Your task to perform on an android device: turn off location history Image 0: 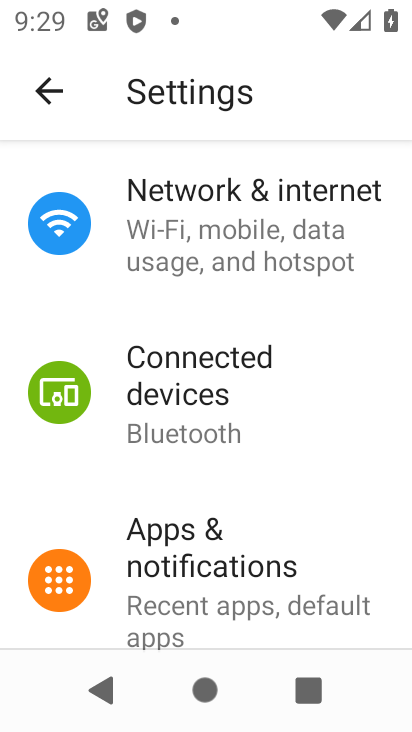
Step 0: drag from (386, 574) to (364, 367)
Your task to perform on an android device: turn off location history Image 1: 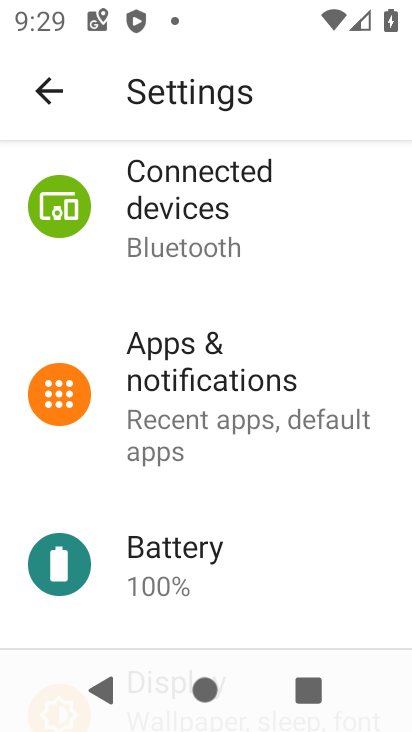
Step 1: drag from (362, 560) to (365, 365)
Your task to perform on an android device: turn off location history Image 2: 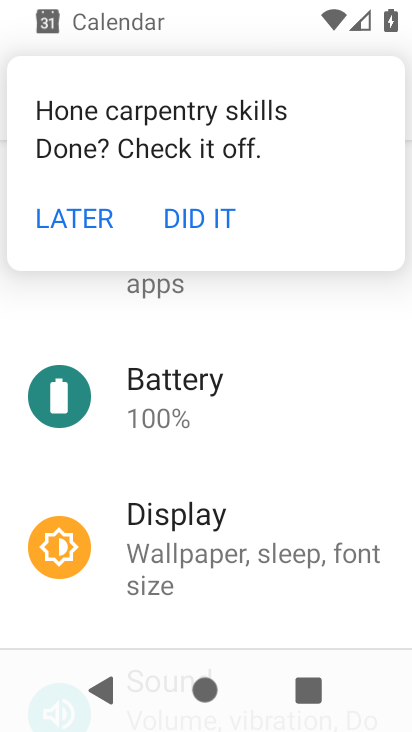
Step 2: drag from (357, 592) to (351, 392)
Your task to perform on an android device: turn off location history Image 3: 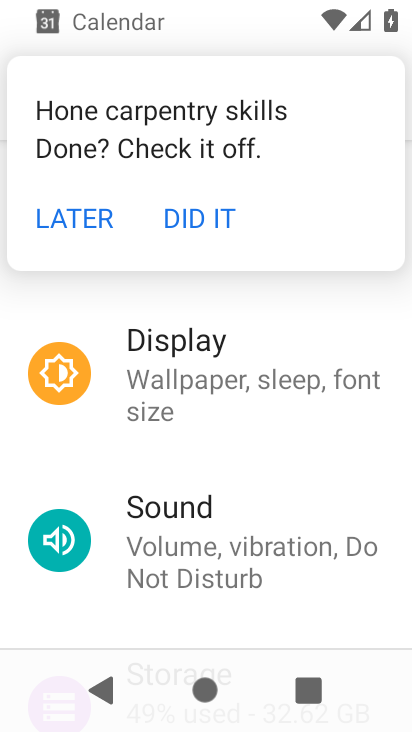
Step 3: drag from (357, 592) to (361, 438)
Your task to perform on an android device: turn off location history Image 4: 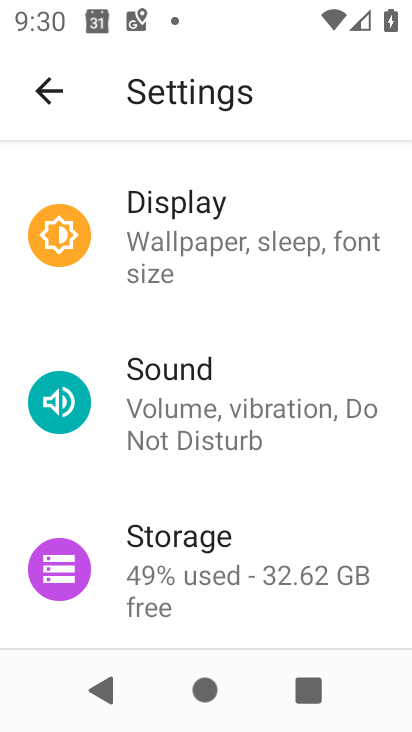
Step 4: drag from (367, 629) to (360, 479)
Your task to perform on an android device: turn off location history Image 5: 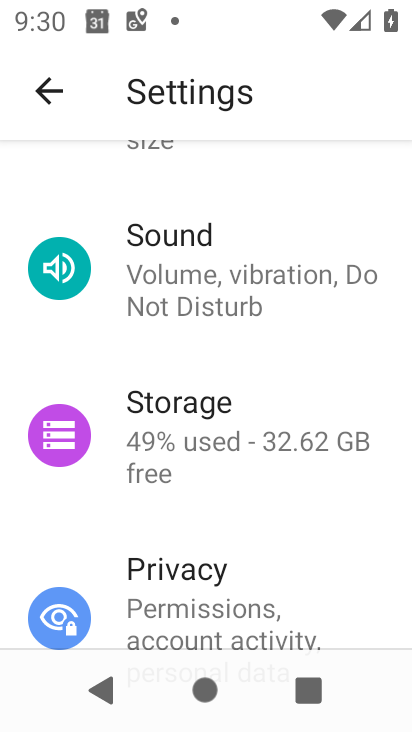
Step 5: drag from (355, 568) to (353, 463)
Your task to perform on an android device: turn off location history Image 6: 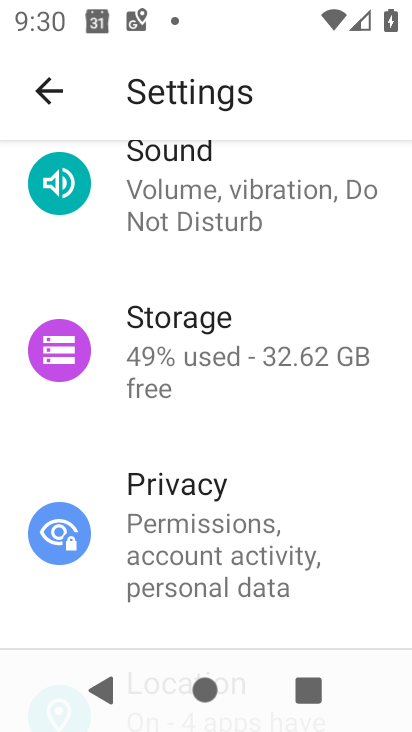
Step 6: drag from (345, 582) to (341, 464)
Your task to perform on an android device: turn off location history Image 7: 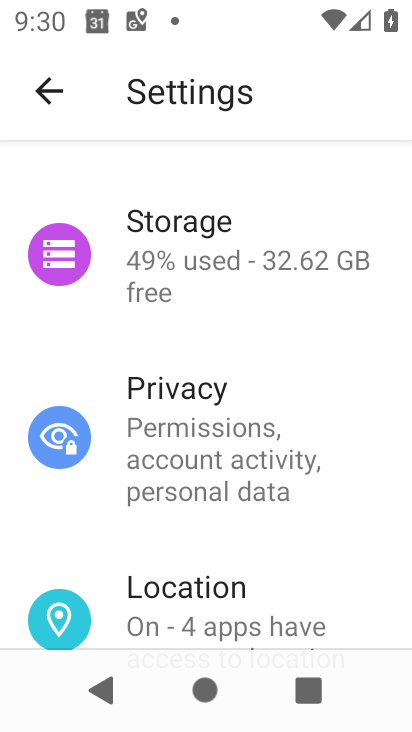
Step 7: drag from (381, 552) to (361, 386)
Your task to perform on an android device: turn off location history Image 8: 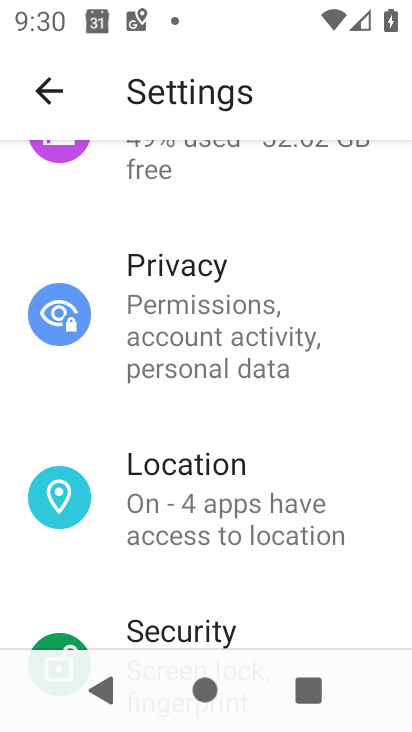
Step 8: drag from (362, 556) to (362, 383)
Your task to perform on an android device: turn off location history Image 9: 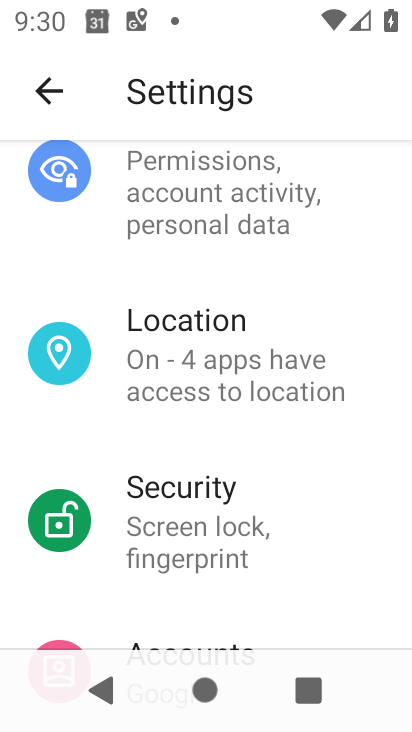
Step 9: click (274, 384)
Your task to perform on an android device: turn off location history Image 10: 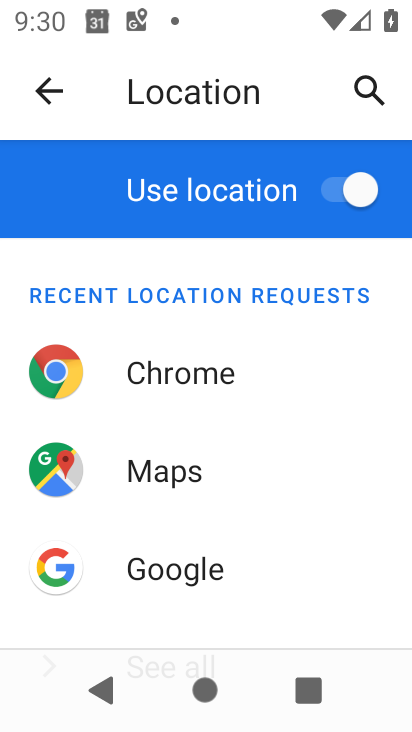
Step 10: drag from (309, 488) to (313, 411)
Your task to perform on an android device: turn off location history Image 11: 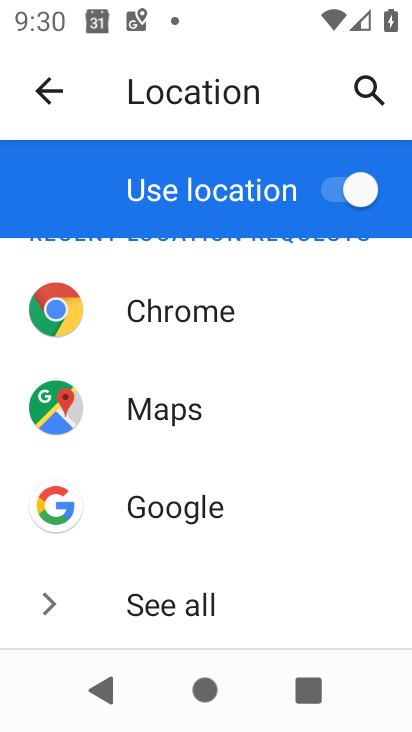
Step 11: drag from (311, 560) to (314, 466)
Your task to perform on an android device: turn off location history Image 12: 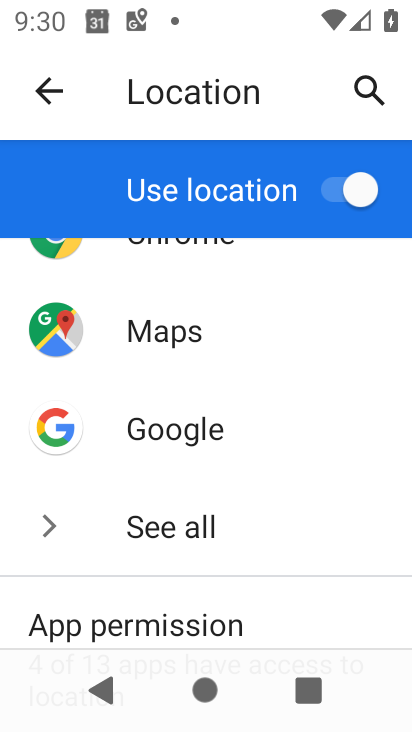
Step 12: drag from (311, 579) to (322, 455)
Your task to perform on an android device: turn off location history Image 13: 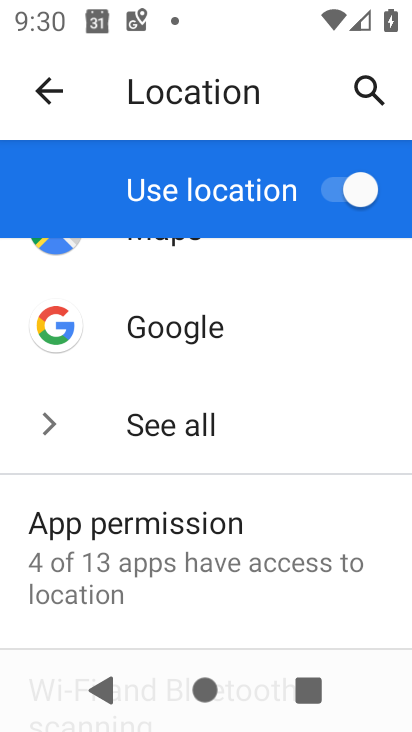
Step 13: drag from (327, 587) to (342, 371)
Your task to perform on an android device: turn off location history Image 14: 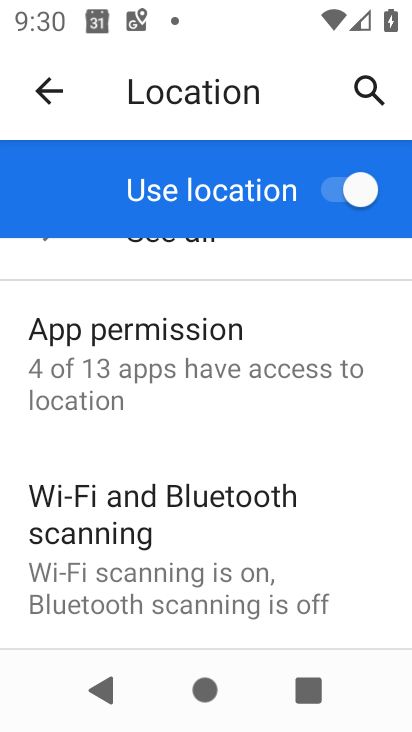
Step 14: drag from (352, 541) to (359, 447)
Your task to perform on an android device: turn off location history Image 15: 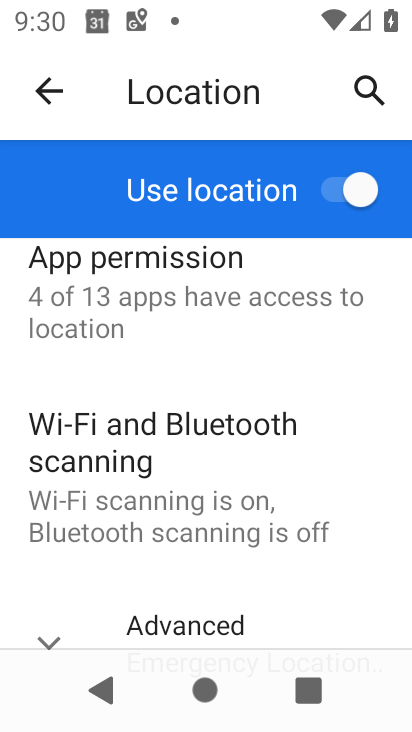
Step 15: drag from (351, 551) to (360, 355)
Your task to perform on an android device: turn off location history Image 16: 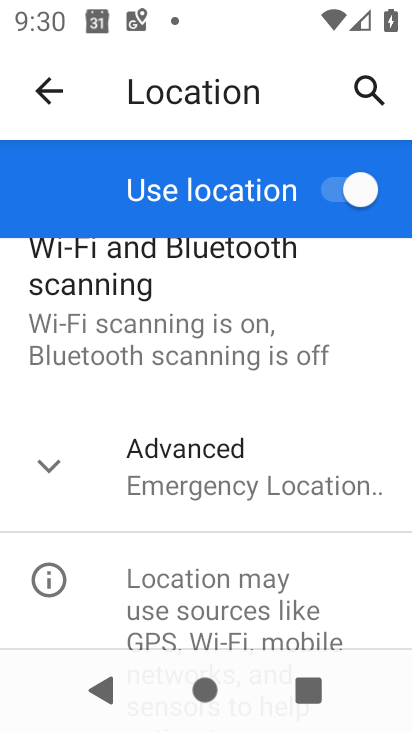
Step 16: click (329, 502)
Your task to perform on an android device: turn off location history Image 17: 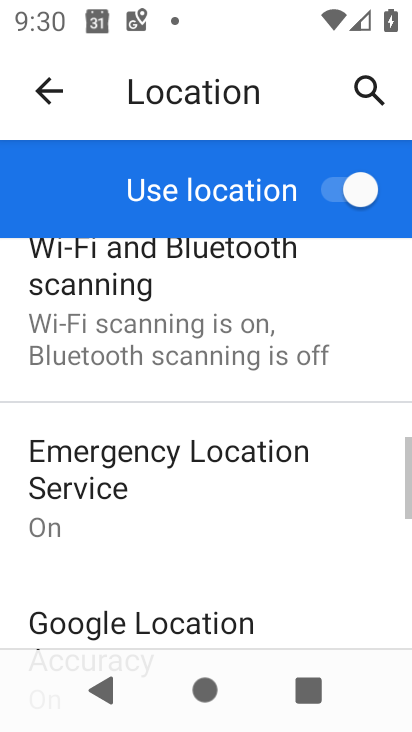
Step 17: drag from (332, 574) to (328, 417)
Your task to perform on an android device: turn off location history Image 18: 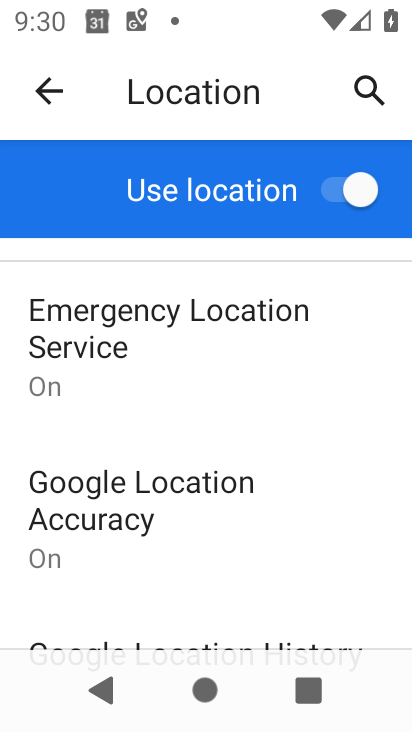
Step 18: drag from (335, 546) to (343, 339)
Your task to perform on an android device: turn off location history Image 19: 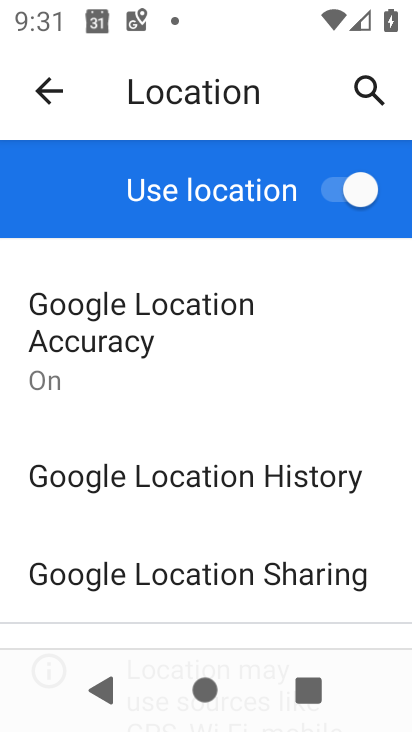
Step 19: click (256, 476)
Your task to perform on an android device: turn off location history Image 20: 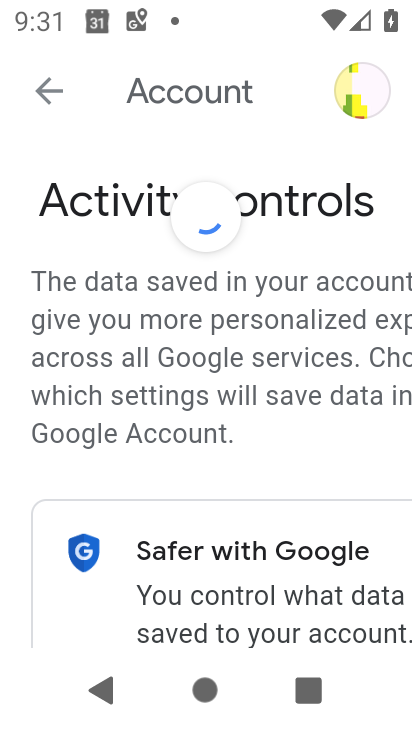
Step 20: drag from (282, 492) to (293, 344)
Your task to perform on an android device: turn off location history Image 21: 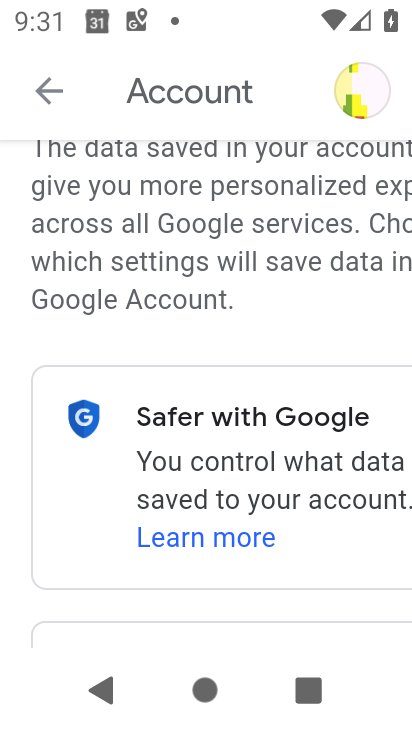
Step 21: drag from (286, 526) to (292, 388)
Your task to perform on an android device: turn off location history Image 22: 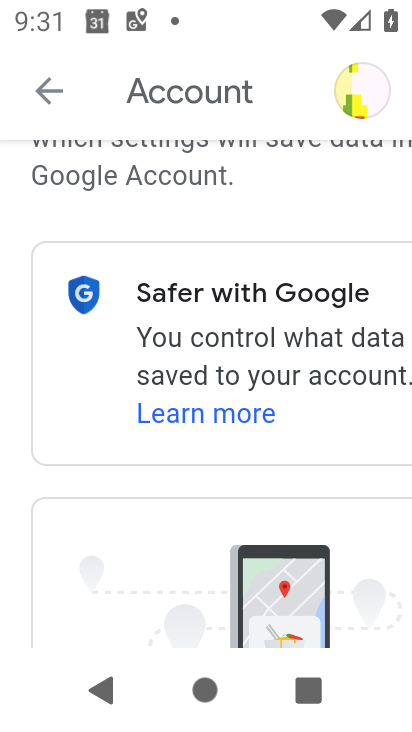
Step 22: drag from (302, 526) to (306, 392)
Your task to perform on an android device: turn off location history Image 23: 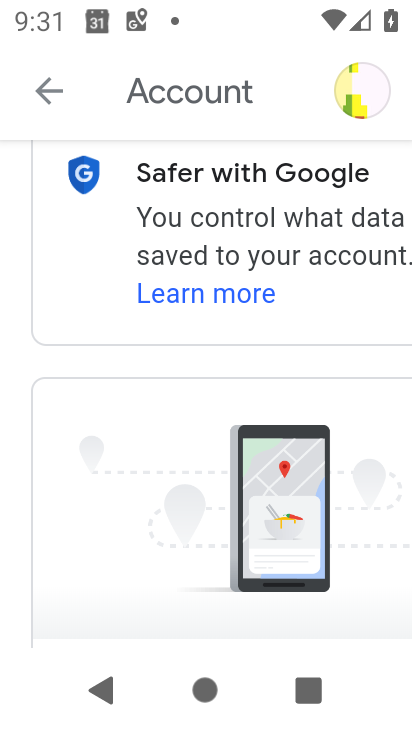
Step 23: drag from (214, 545) to (219, 395)
Your task to perform on an android device: turn off location history Image 24: 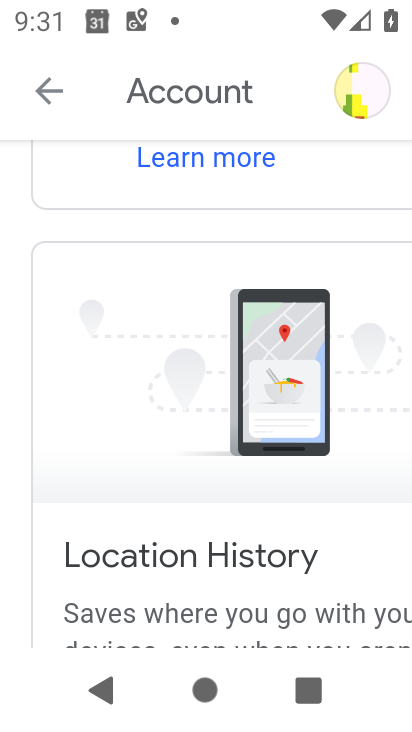
Step 24: drag from (238, 570) to (241, 432)
Your task to perform on an android device: turn off location history Image 25: 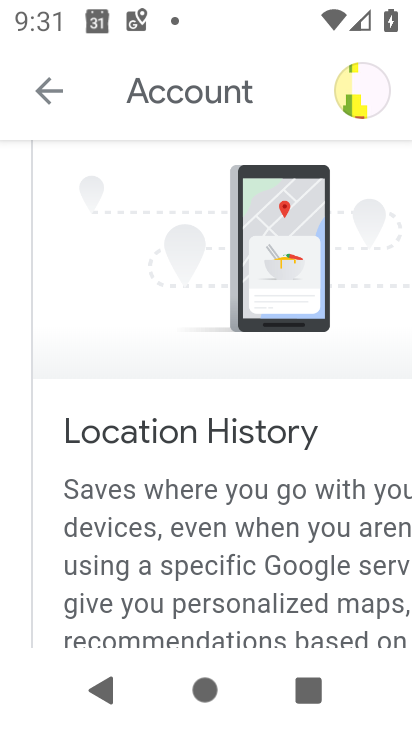
Step 25: drag from (236, 522) to (274, 342)
Your task to perform on an android device: turn off location history Image 26: 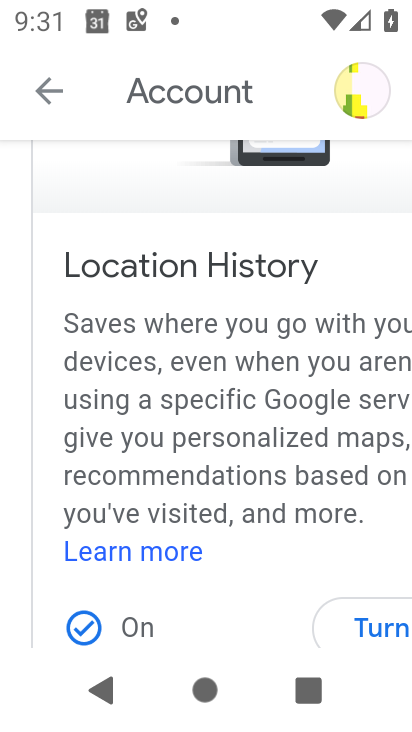
Step 26: drag from (276, 469) to (283, 322)
Your task to perform on an android device: turn off location history Image 27: 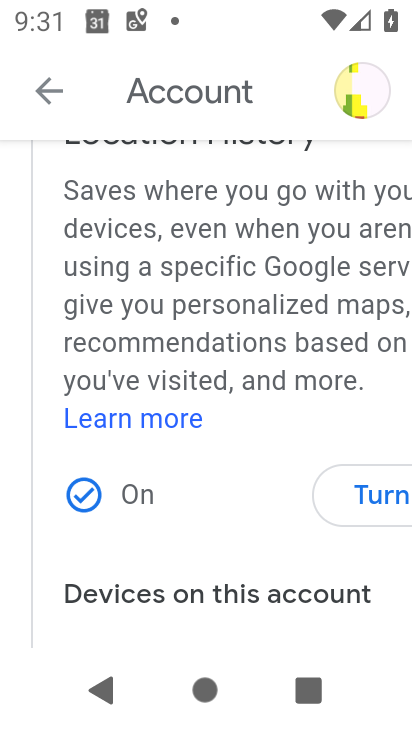
Step 27: drag from (260, 457) to (267, 340)
Your task to perform on an android device: turn off location history Image 28: 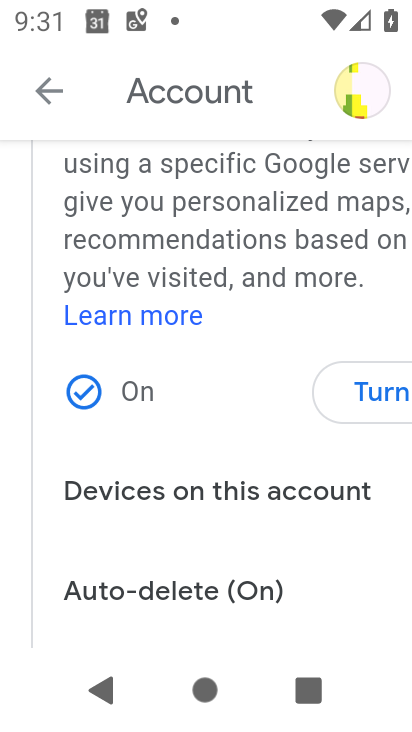
Step 28: drag from (241, 450) to (240, 346)
Your task to perform on an android device: turn off location history Image 29: 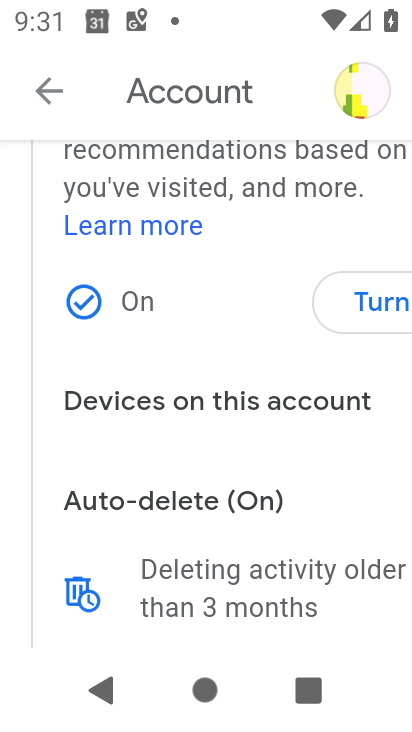
Step 29: click (384, 307)
Your task to perform on an android device: turn off location history Image 30: 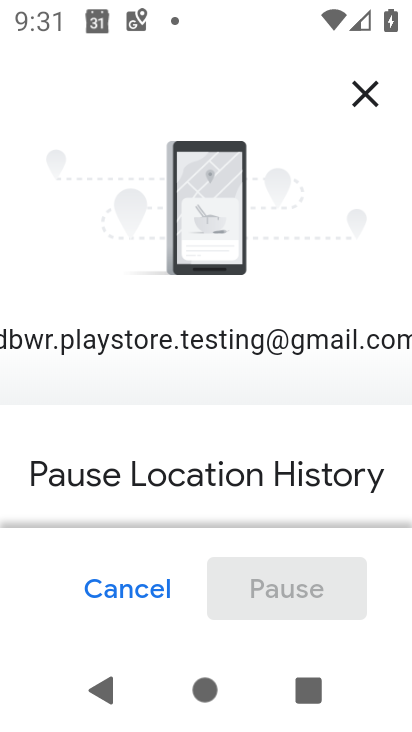
Step 30: drag from (256, 465) to (259, 362)
Your task to perform on an android device: turn off location history Image 31: 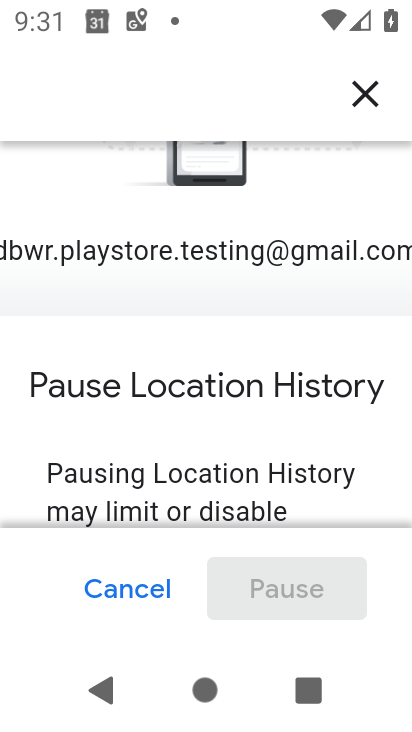
Step 31: drag from (260, 466) to (263, 334)
Your task to perform on an android device: turn off location history Image 32: 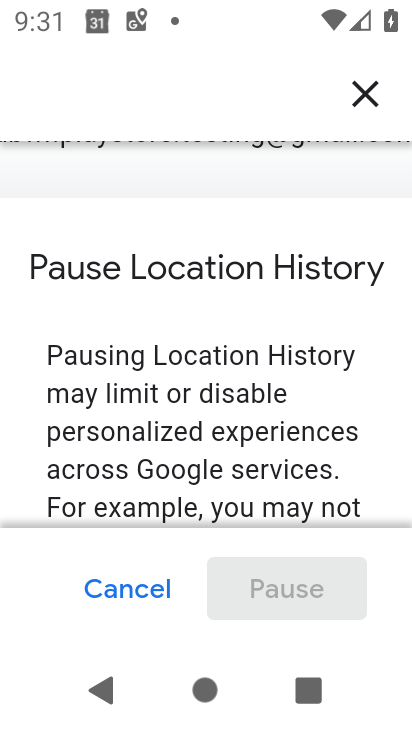
Step 32: drag from (272, 466) to (285, 295)
Your task to perform on an android device: turn off location history Image 33: 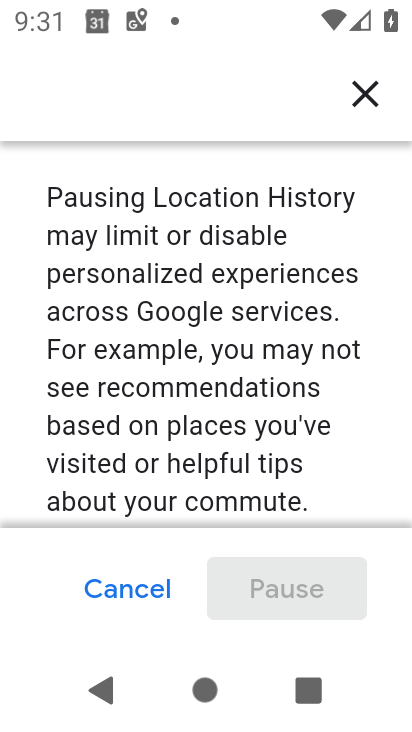
Step 33: drag from (313, 466) to (299, 297)
Your task to perform on an android device: turn off location history Image 34: 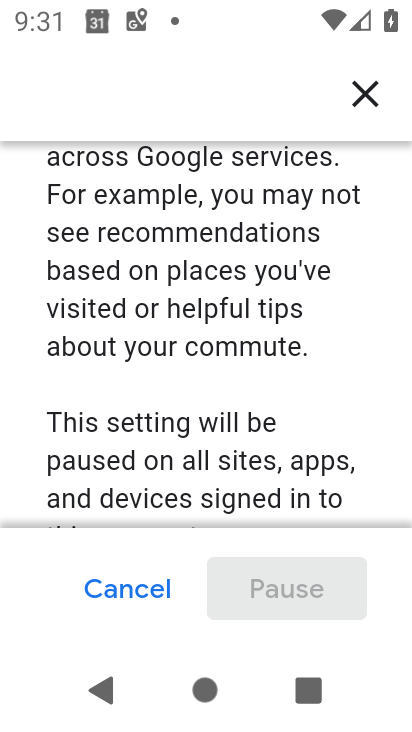
Step 34: drag from (307, 455) to (299, 319)
Your task to perform on an android device: turn off location history Image 35: 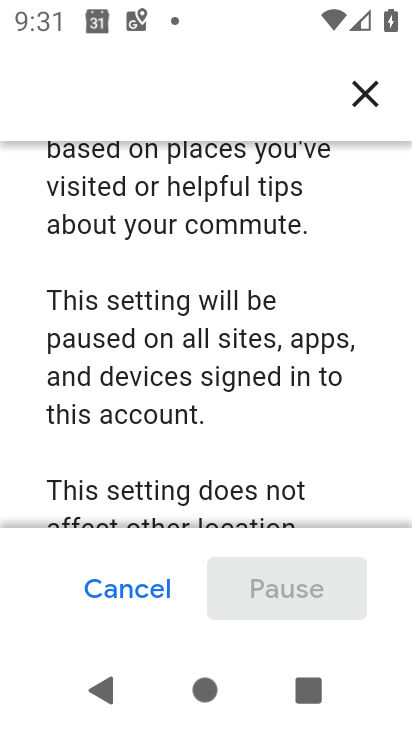
Step 35: drag from (255, 433) to (260, 319)
Your task to perform on an android device: turn off location history Image 36: 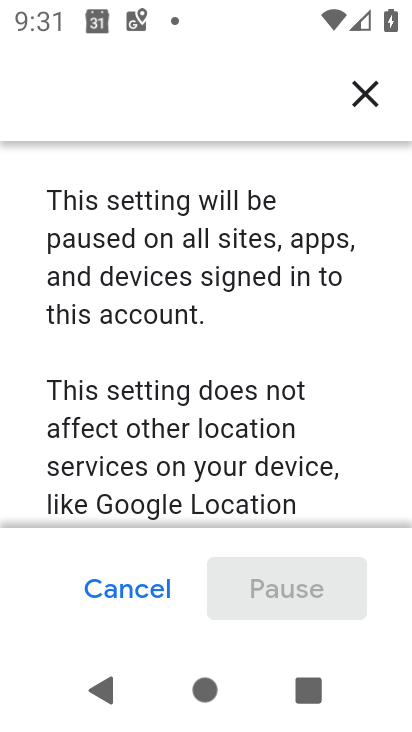
Step 36: drag from (284, 434) to (283, 335)
Your task to perform on an android device: turn off location history Image 37: 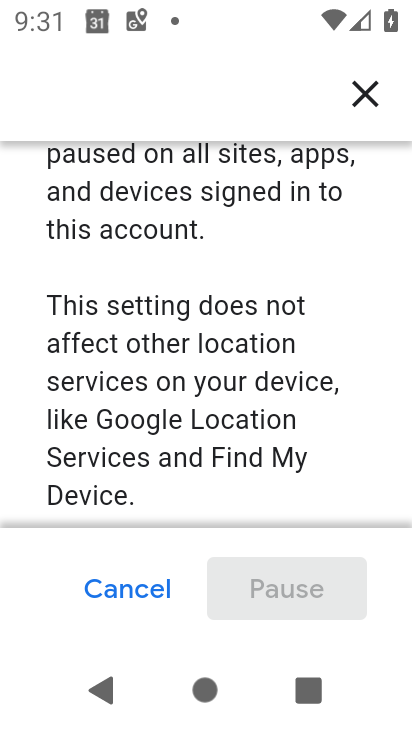
Step 37: drag from (304, 459) to (308, 354)
Your task to perform on an android device: turn off location history Image 38: 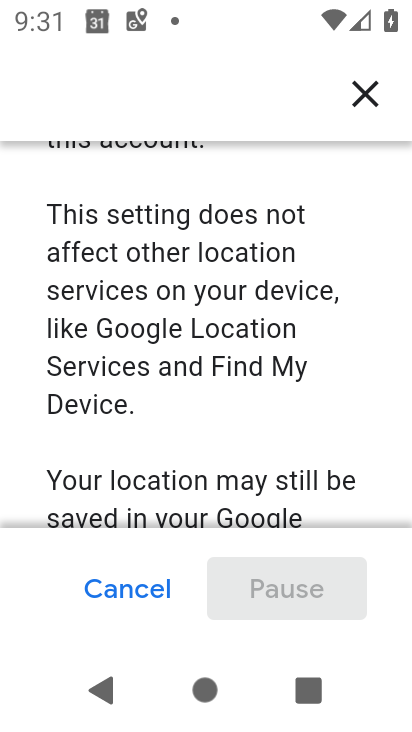
Step 38: drag from (378, 505) to (373, 373)
Your task to perform on an android device: turn off location history Image 39: 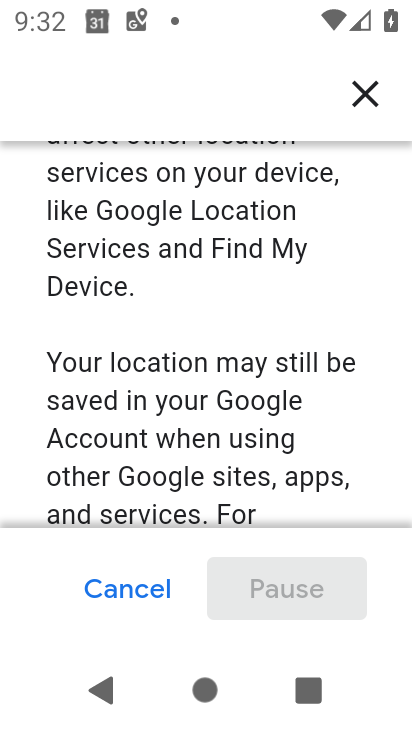
Step 39: drag from (366, 501) to (360, 388)
Your task to perform on an android device: turn off location history Image 40: 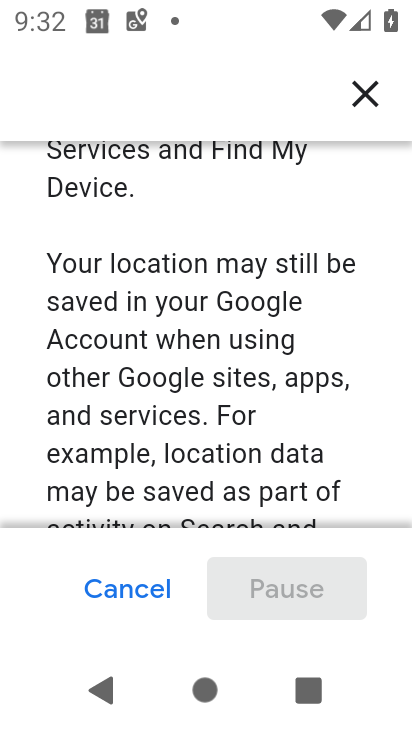
Step 40: drag from (379, 447) to (377, 290)
Your task to perform on an android device: turn off location history Image 41: 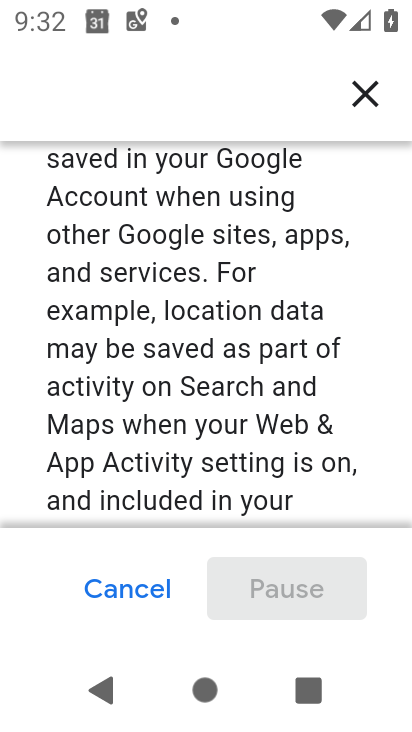
Step 41: drag from (361, 420) to (360, 269)
Your task to perform on an android device: turn off location history Image 42: 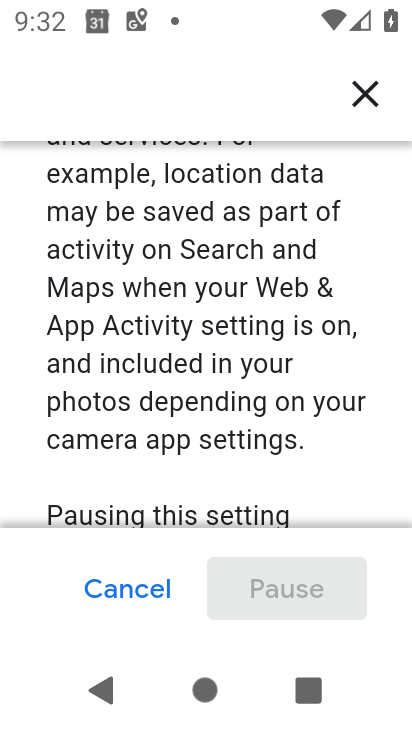
Step 42: drag from (368, 447) to (374, 305)
Your task to perform on an android device: turn off location history Image 43: 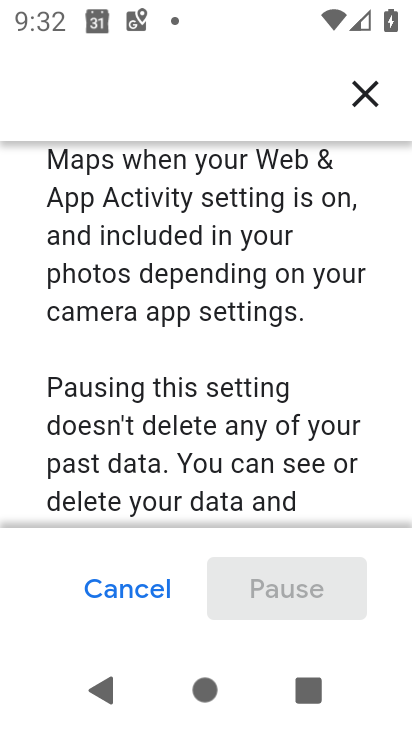
Step 43: drag from (374, 366) to (374, 200)
Your task to perform on an android device: turn off location history Image 44: 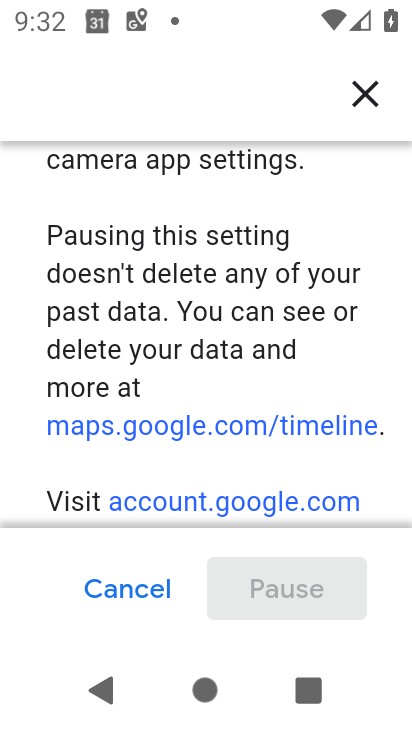
Step 44: drag from (366, 453) to (376, 236)
Your task to perform on an android device: turn off location history Image 45: 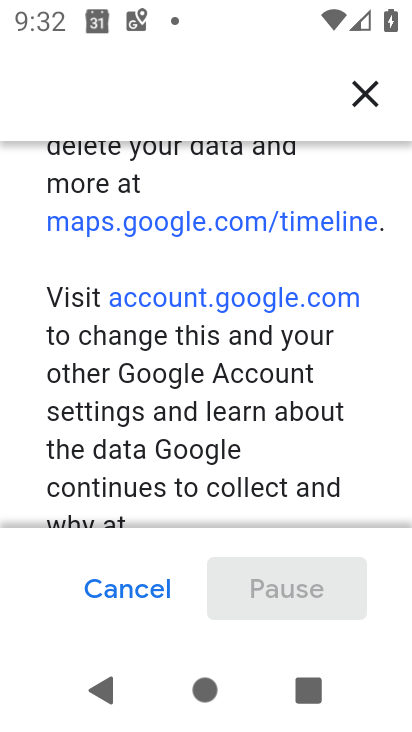
Step 45: drag from (371, 479) to (379, 255)
Your task to perform on an android device: turn off location history Image 46: 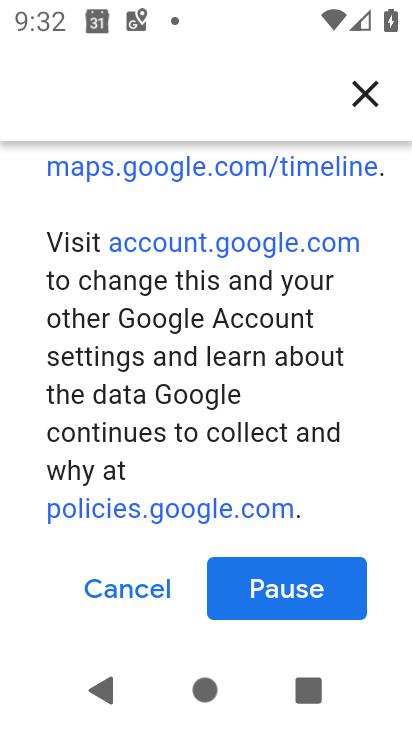
Step 46: click (313, 601)
Your task to perform on an android device: turn off location history Image 47: 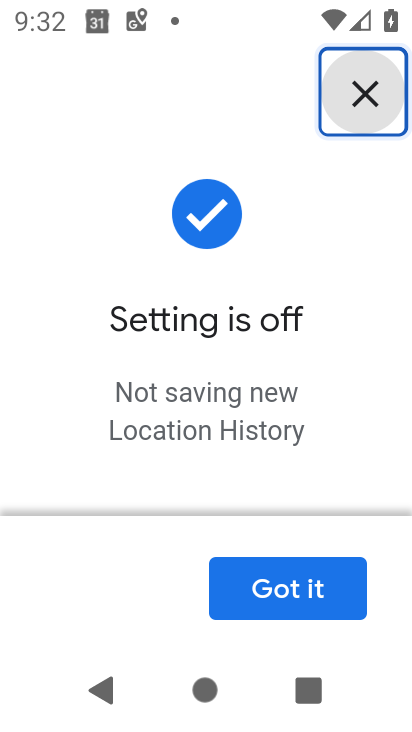
Step 47: task complete